Your task to perform on an android device: Go to Amazon Image 0: 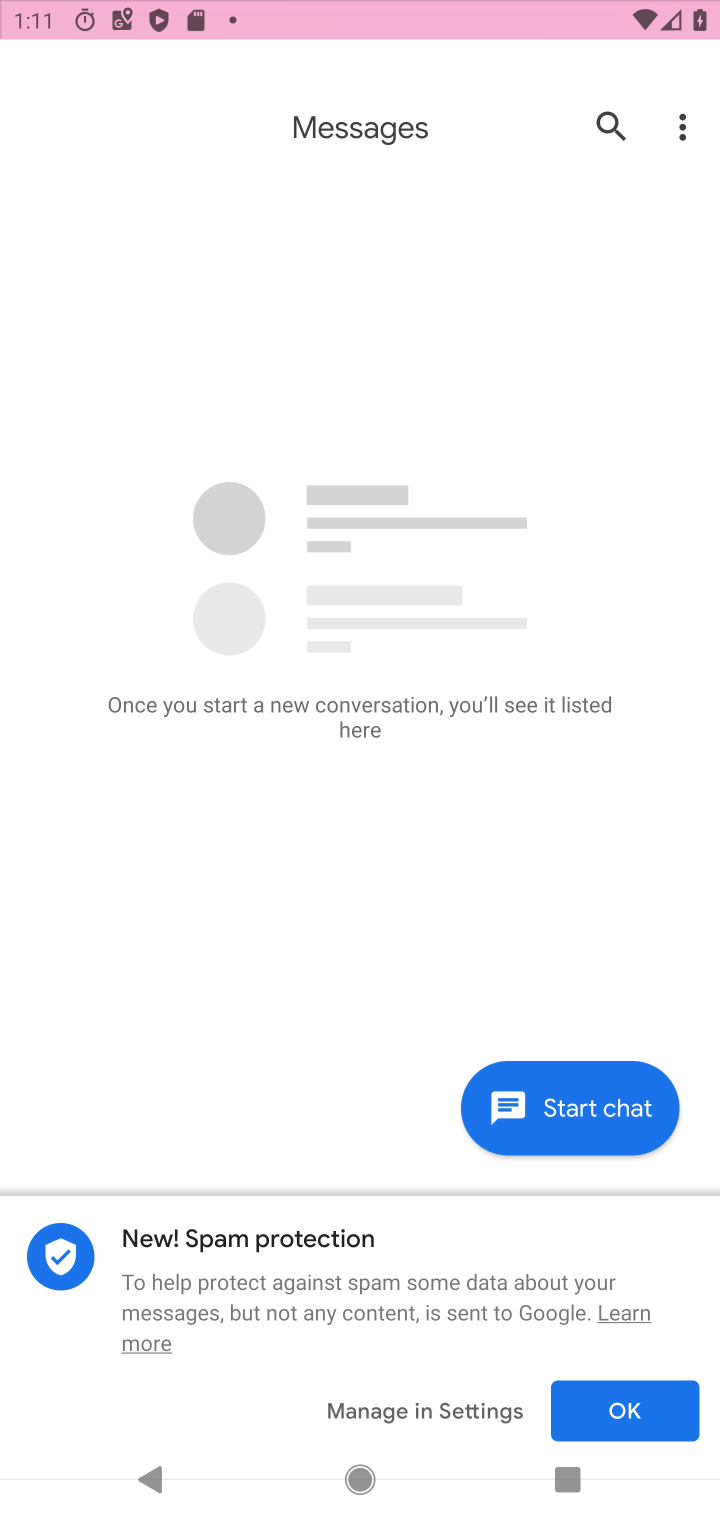
Step 0: press home button
Your task to perform on an android device: Go to Amazon Image 1: 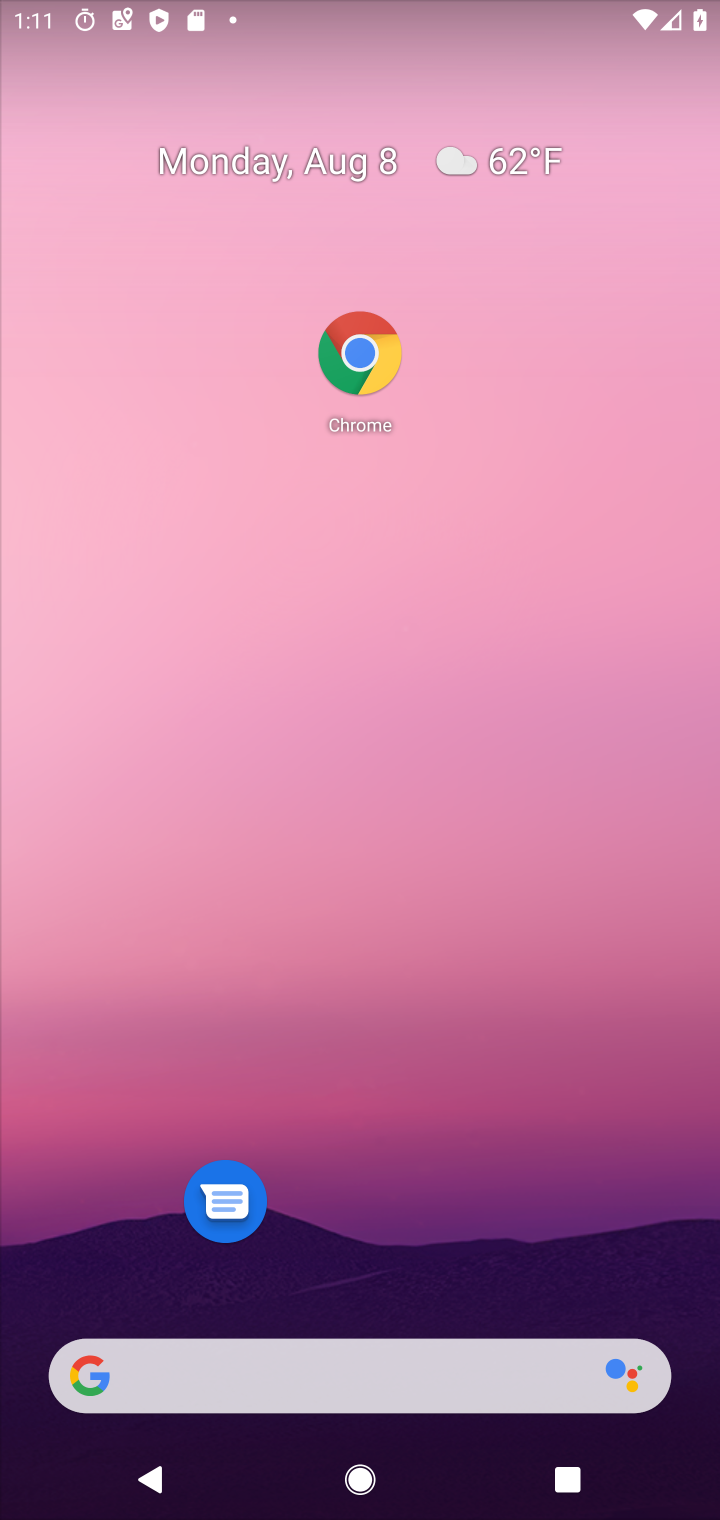
Step 1: drag from (423, 1404) to (414, 455)
Your task to perform on an android device: Go to Amazon Image 2: 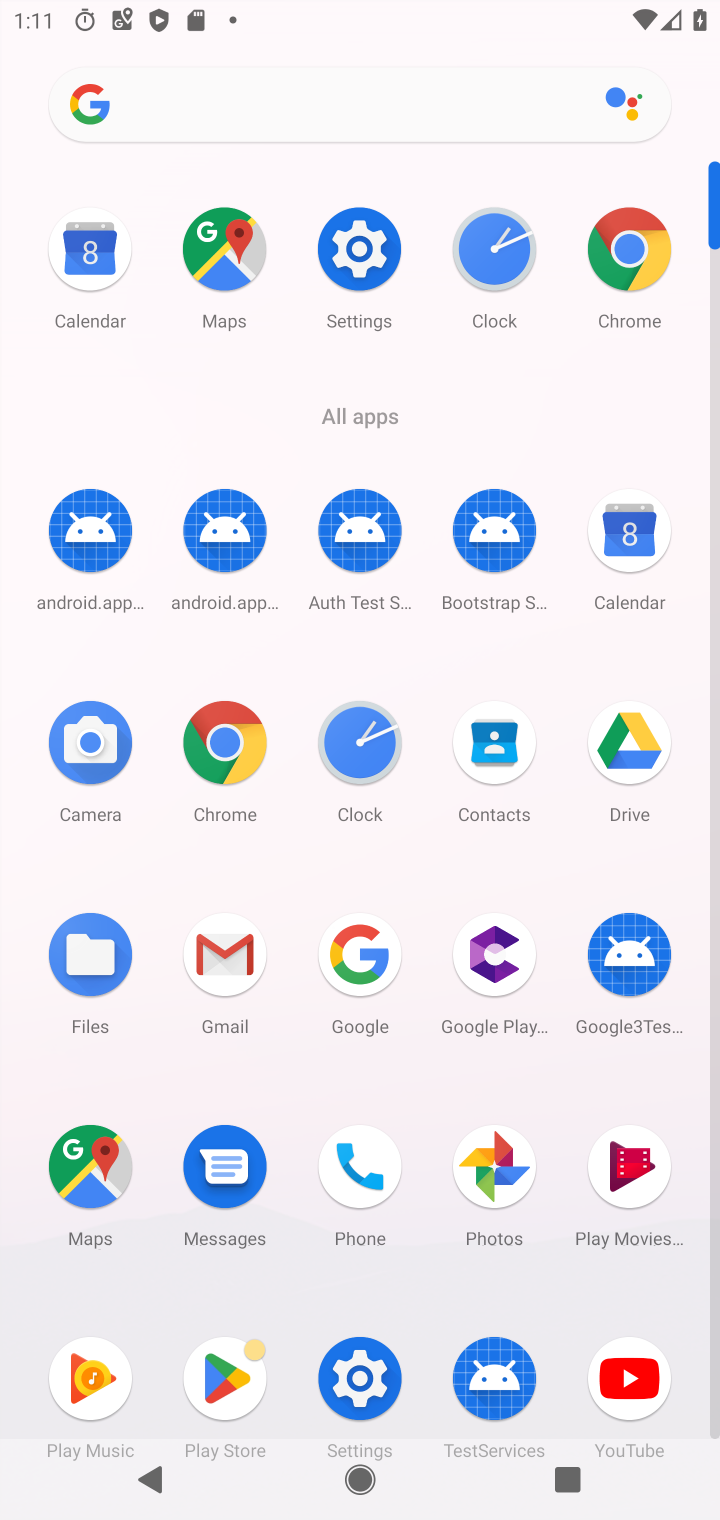
Step 2: click (606, 243)
Your task to perform on an android device: Go to Amazon Image 3: 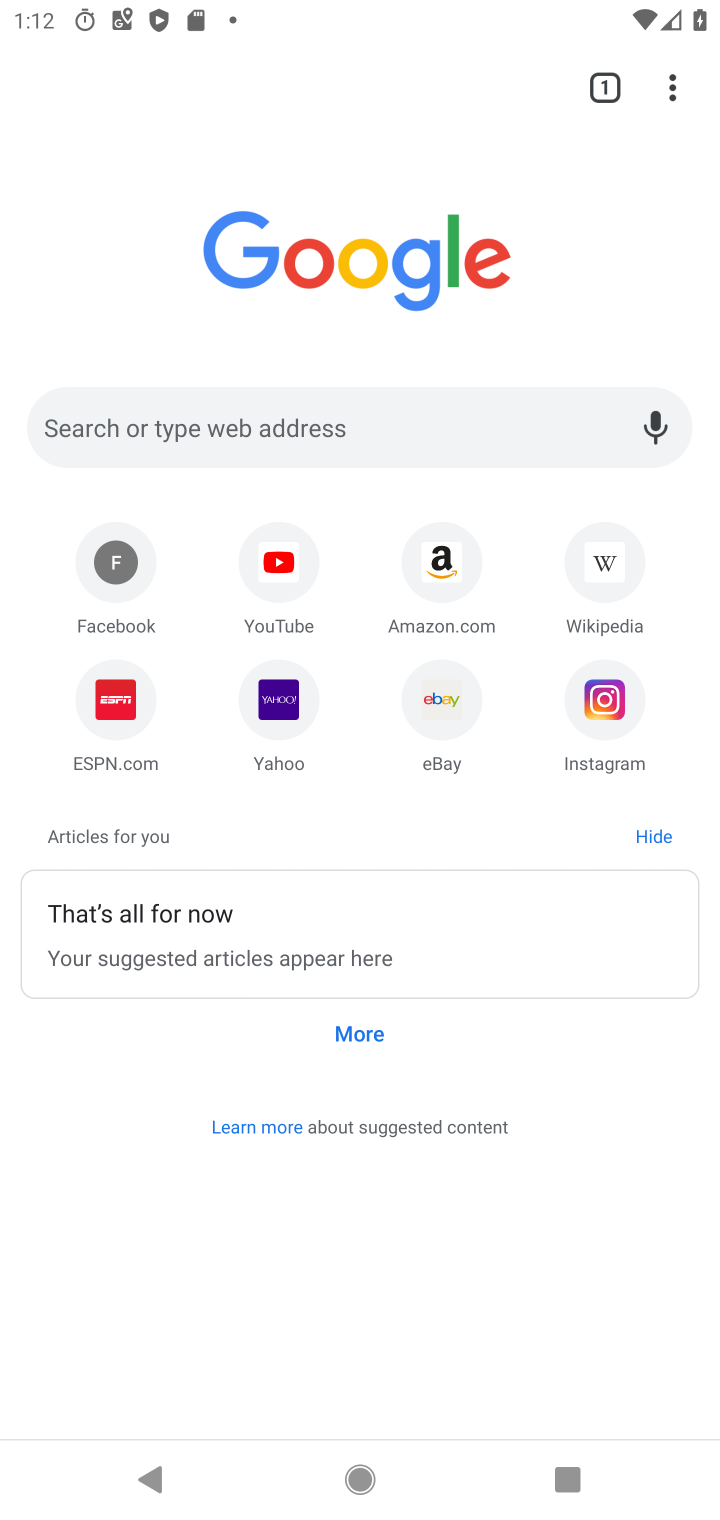
Step 3: click (422, 552)
Your task to perform on an android device: Go to Amazon Image 4: 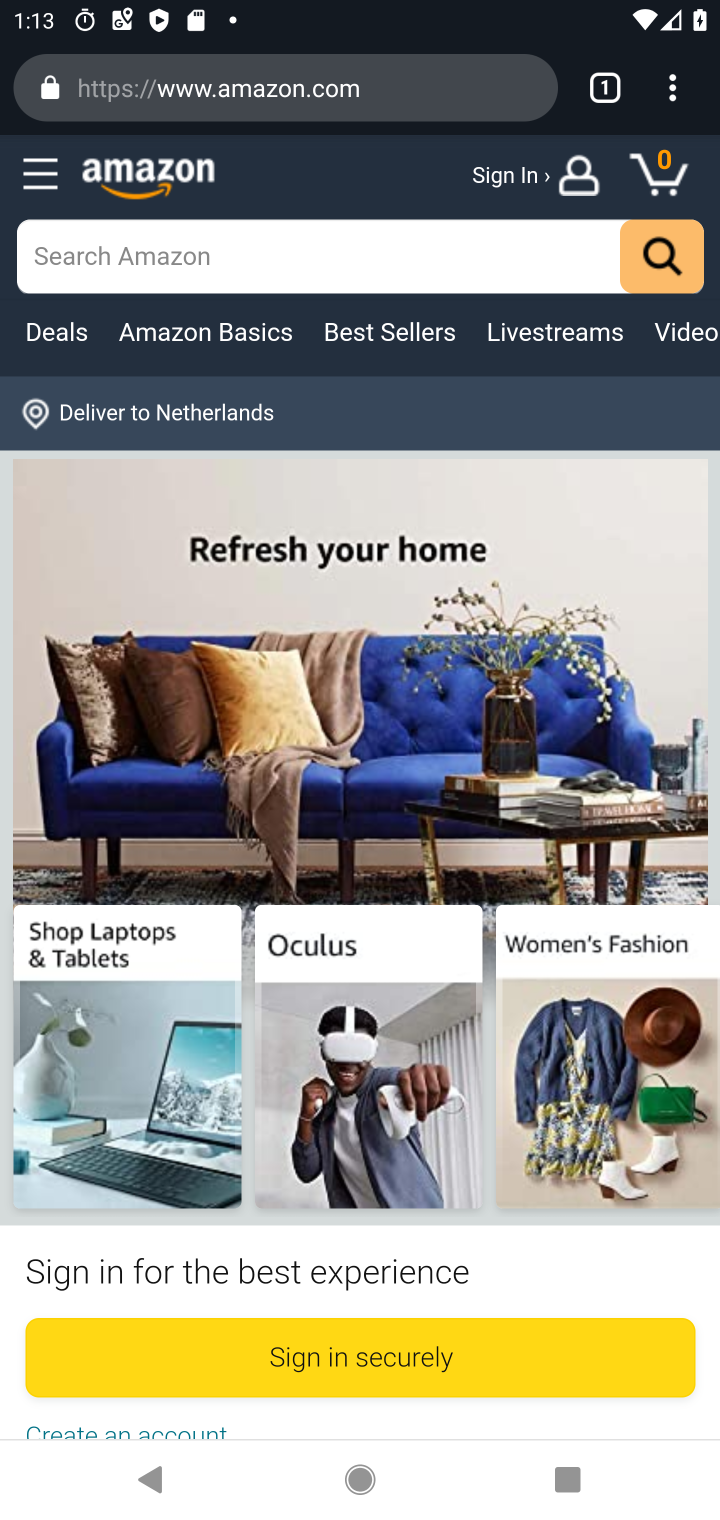
Step 4: task complete